Your task to perform on an android device: turn on showing notifications on the lock screen Image 0: 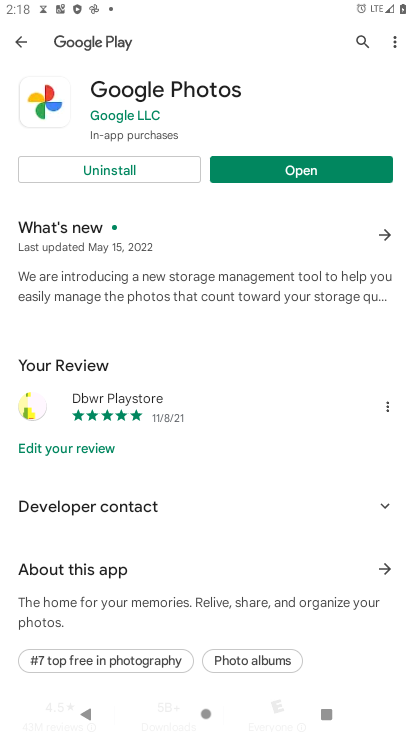
Step 0: press home button
Your task to perform on an android device: turn on showing notifications on the lock screen Image 1: 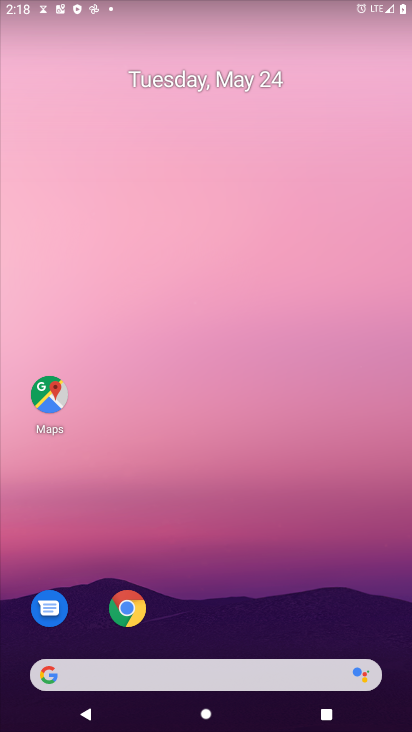
Step 1: drag from (250, 693) to (135, 176)
Your task to perform on an android device: turn on showing notifications on the lock screen Image 2: 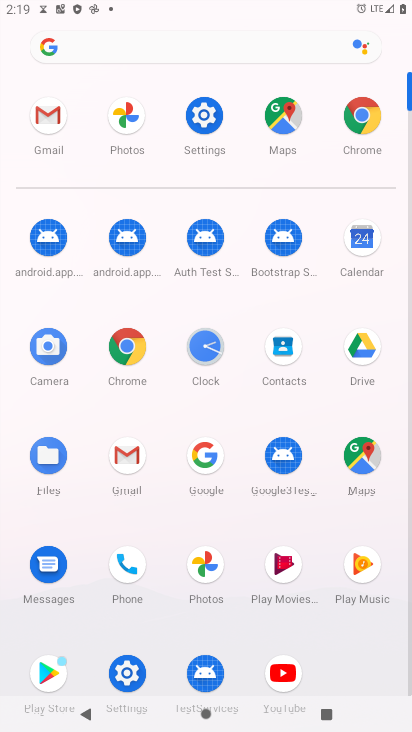
Step 2: click (204, 135)
Your task to perform on an android device: turn on showing notifications on the lock screen Image 3: 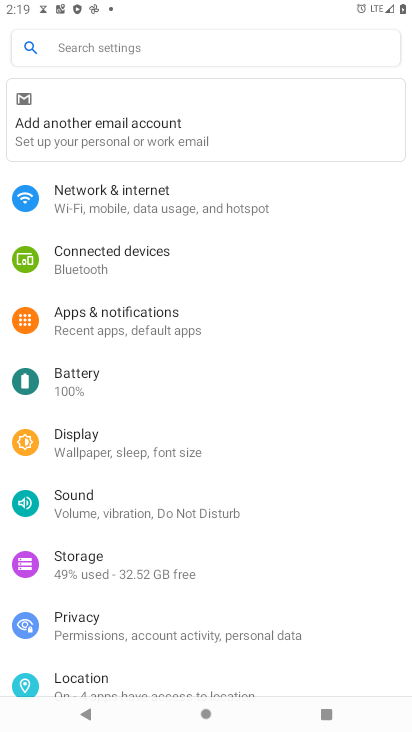
Step 3: click (101, 56)
Your task to perform on an android device: turn on showing notifications on the lock screen Image 4: 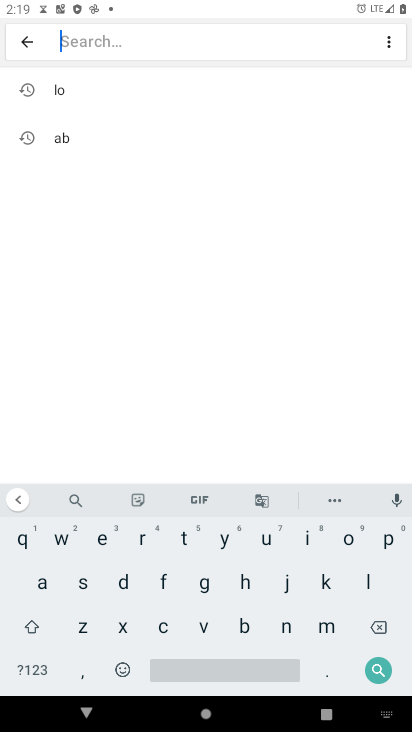
Step 4: click (293, 632)
Your task to perform on an android device: turn on showing notifications on the lock screen Image 5: 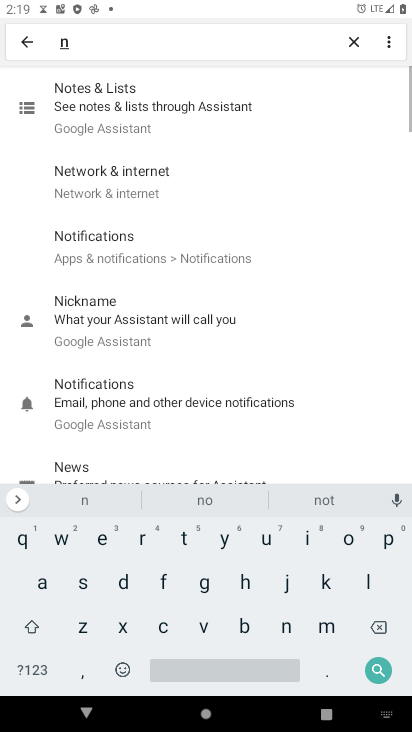
Step 5: click (352, 545)
Your task to perform on an android device: turn on showing notifications on the lock screen Image 6: 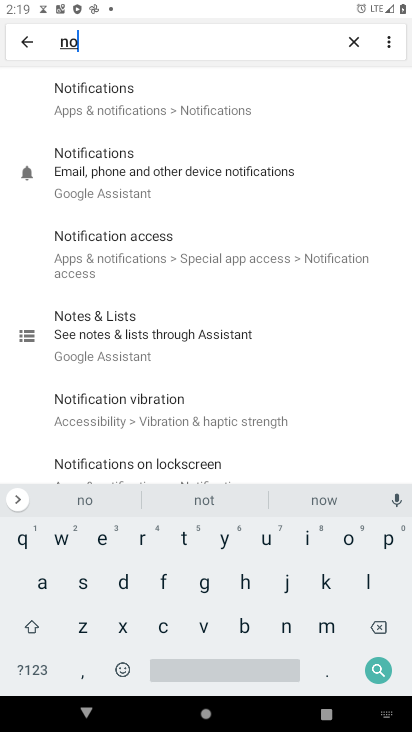
Step 6: click (162, 120)
Your task to perform on an android device: turn on showing notifications on the lock screen Image 7: 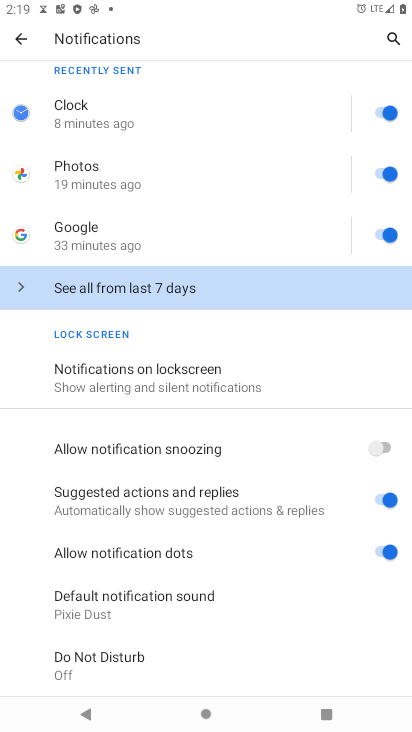
Step 7: click (118, 368)
Your task to perform on an android device: turn on showing notifications on the lock screen Image 8: 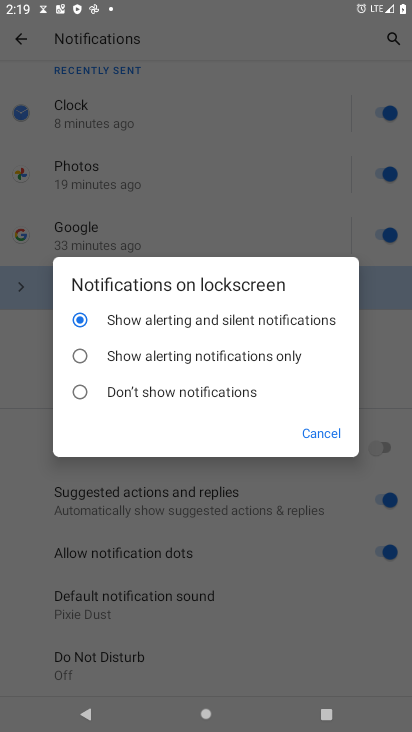
Step 8: task complete